Your task to perform on an android device: Open the map Image 0: 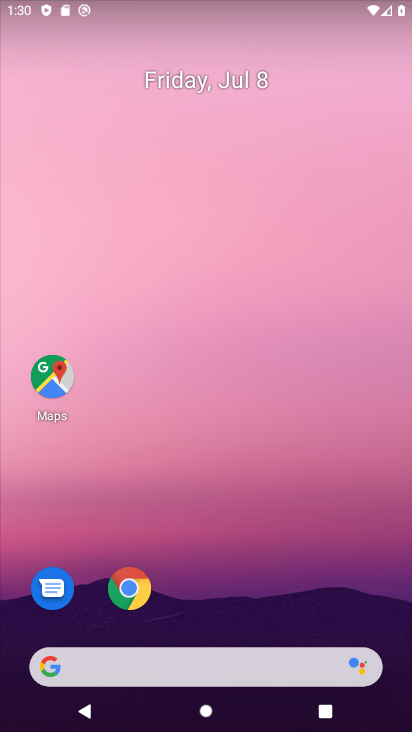
Step 0: press home button
Your task to perform on an android device: Open the map Image 1: 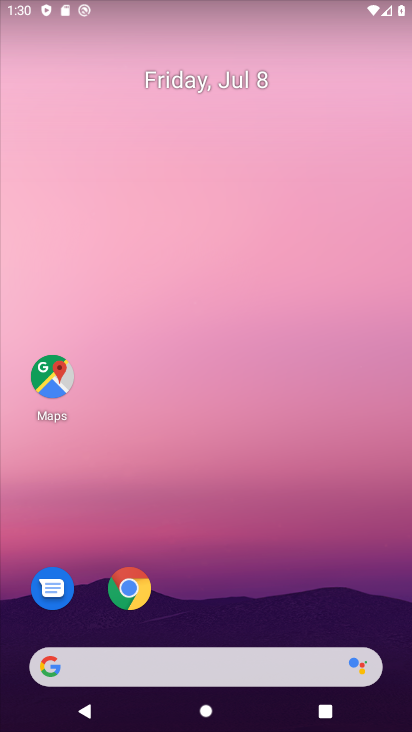
Step 1: click (57, 369)
Your task to perform on an android device: Open the map Image 2: 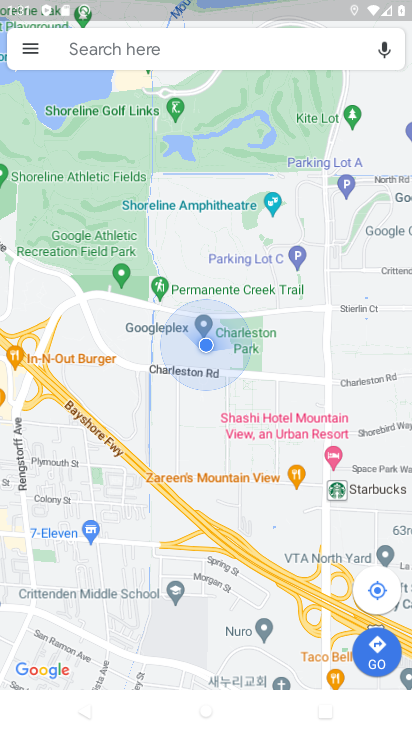
Step 2: task complete